Your task to perform on an android device: toggle translation in the chrome app Image 0: 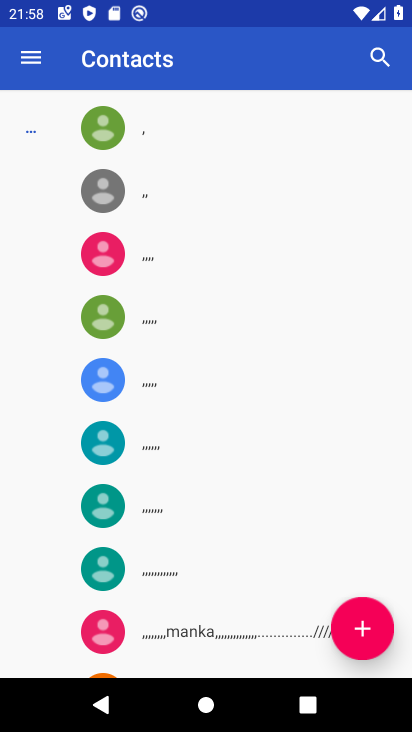
Step 0: press home button
Your task to perform on an android device: toggle translation in the chrome app Image 1: 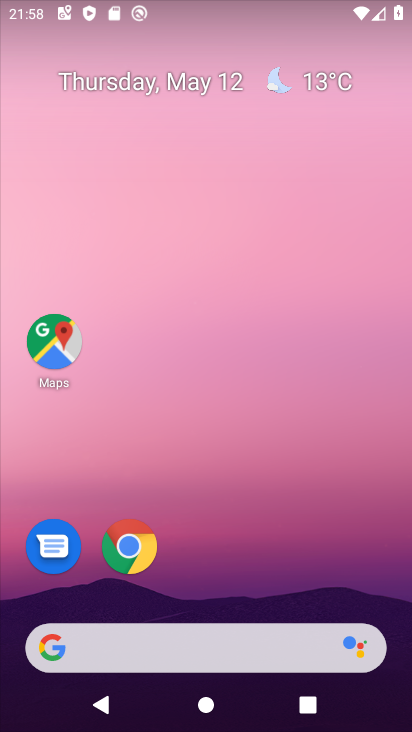
Step 1: click (131, 542)
Your task to perform on an android device: toggle translation in the chrome app Image 2: 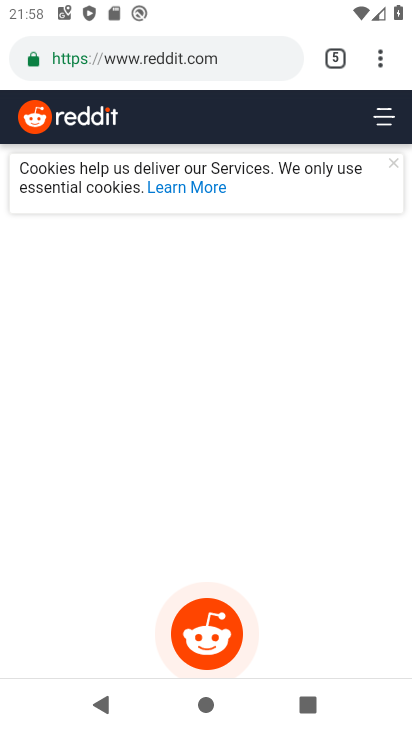
Step 2: drag from (382, 47) to (218, 569)
Your task to perform on an android device: toggle translation in the chrome app Image 3: 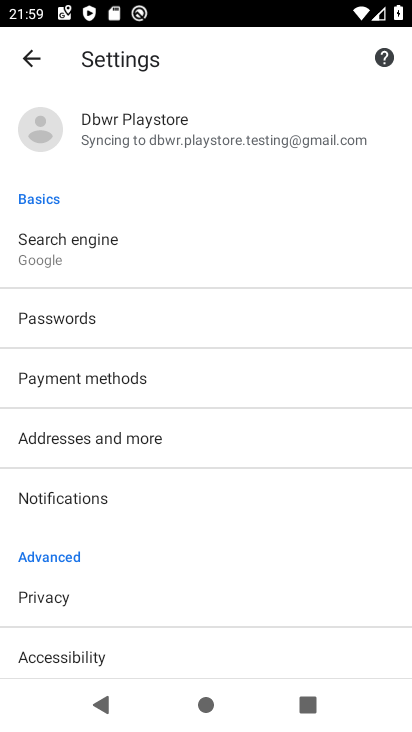
Step 3: drag from (159, 592) to (248, 222)
Your task to perform on an android device: toggle translation in the chrome app Image 4: 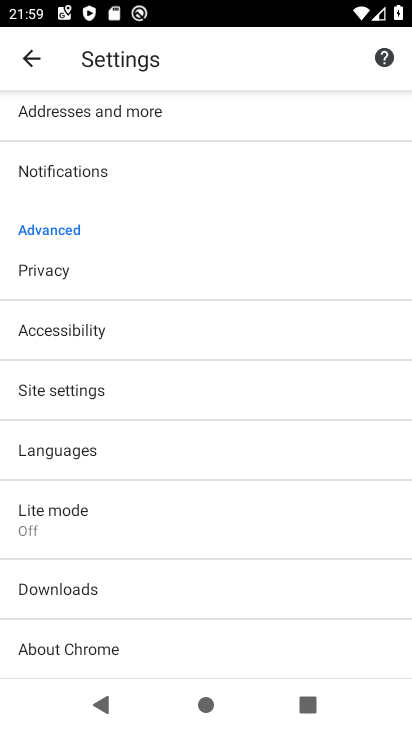
Step 4: click (78, 449)
Your task to perform on an android device: toggle translation in the chrome app Image 5: 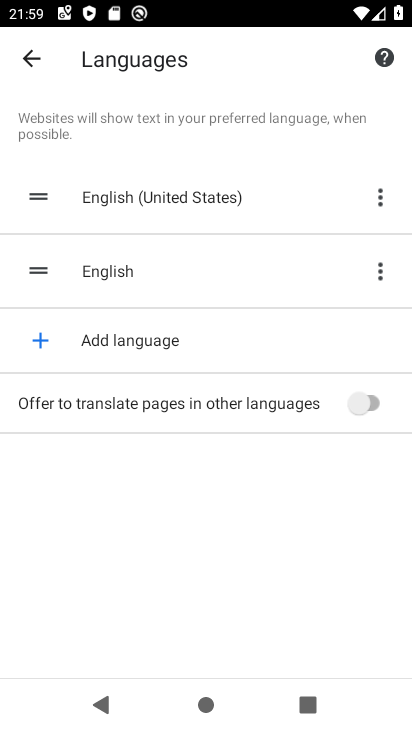
Step 5: click (375, 398)
Your task to perform on an android device: toggle translation in the chrome app Image 6: 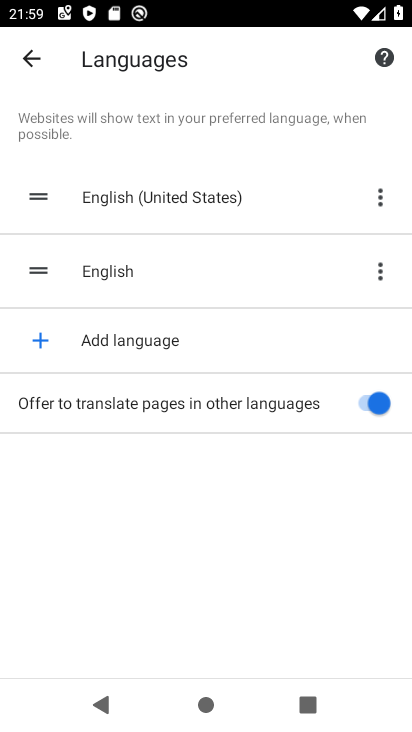
Step 6: task complete